Your task to perform on an android device: create a new album in the google photos Image 0: 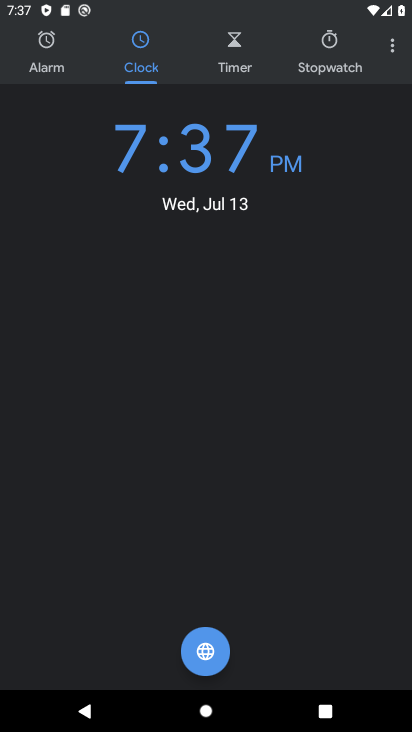
Step 0: press home button
Your task to perform on an android device: create a new album in the google photos Image 1: 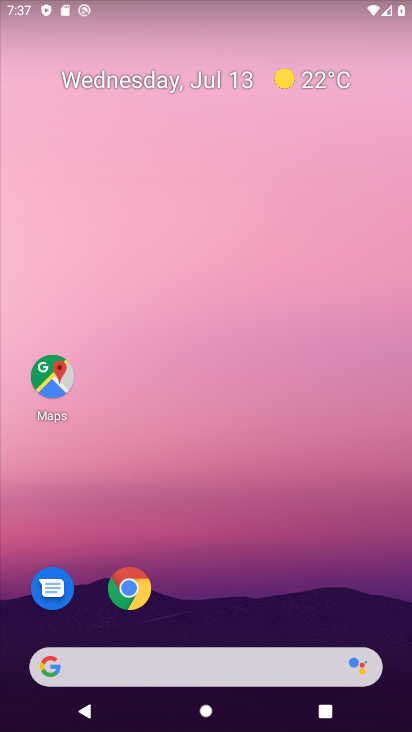
Step 1: drag from (216, 678) to (274, 54)
Your task to perform on an android device: create a new album in the google photos Image 2: 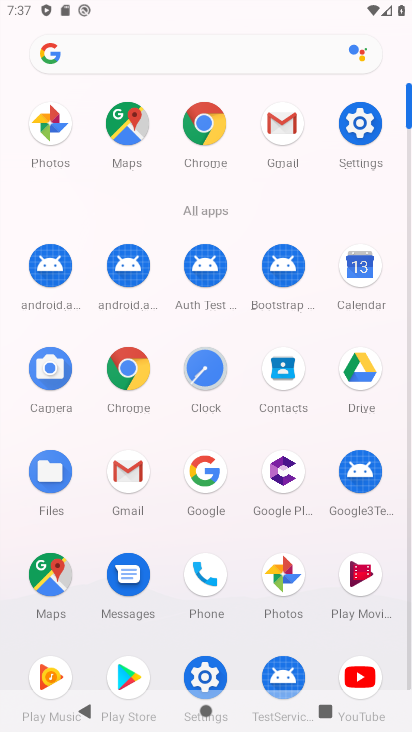
Step 2: click (265, 566)
Your task to perform on an android device: create a new album in the google photos Image 3: 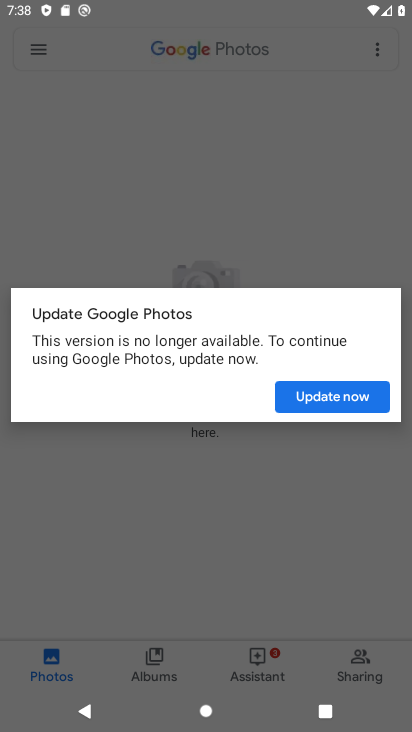
Step 3: click (329, 380)
Your task to perform on an android device: create a new album in the google photos Image 4: 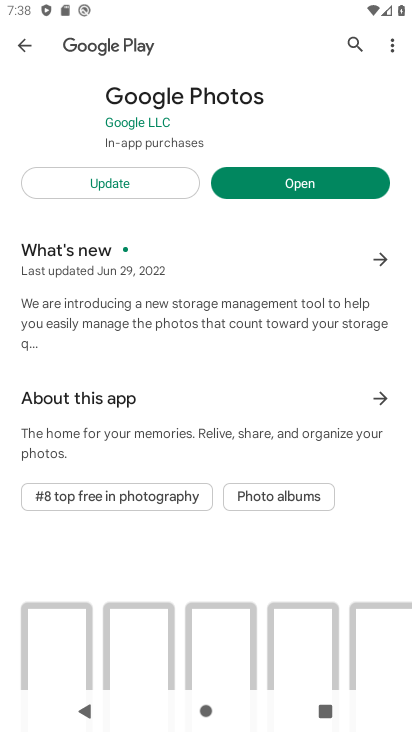
Step 4: press back button
Your task to perform on an android device: create a new album in the google photos Image 5: 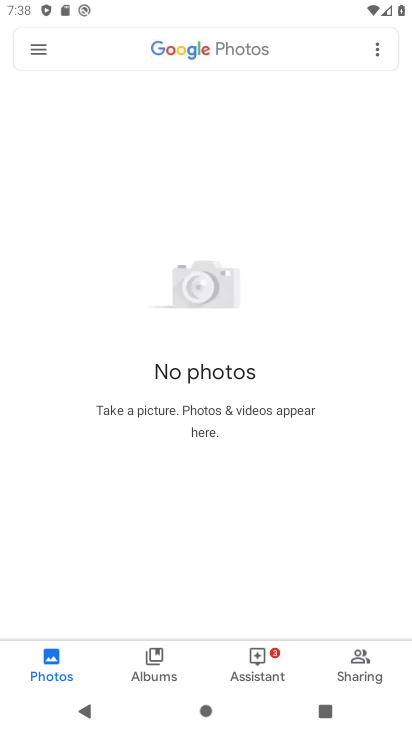
Step 5: click (156, 674)
Your task to perform on an android device: create a new album in the google photos Image 6: 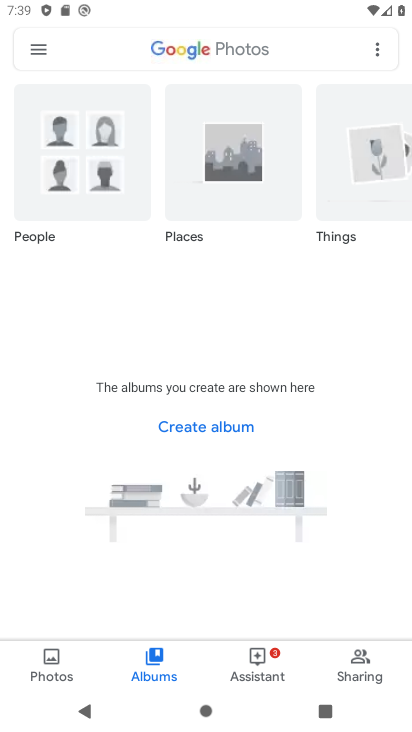
Step 6: task complete